Your task to perform on an android device: stop showing notifications on the lock screen Image 0: 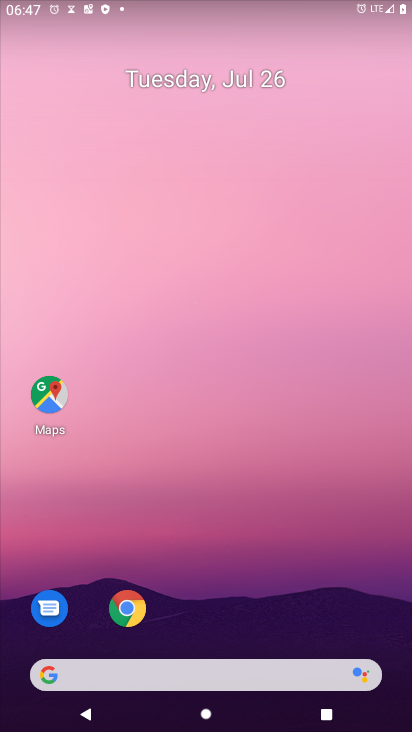
Step 0: press home button
Your task to perform on an android device: stop showing notifications on the lock screen Image 1: 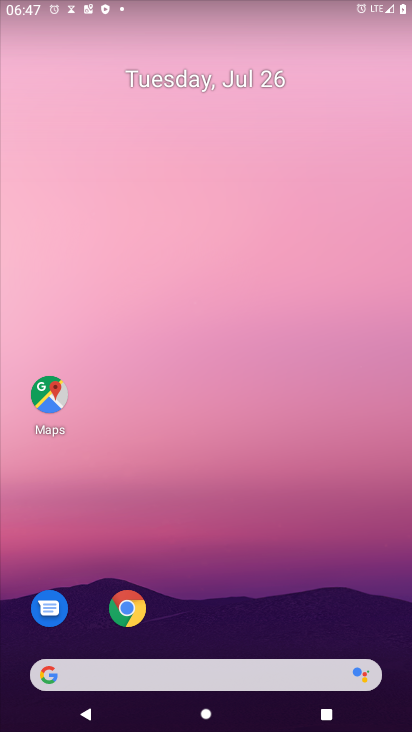
Step 1: drag from (283, 637) to (258, 191)
Your task to perform on an android device: stop showing notifications on the lock screen Image 2: 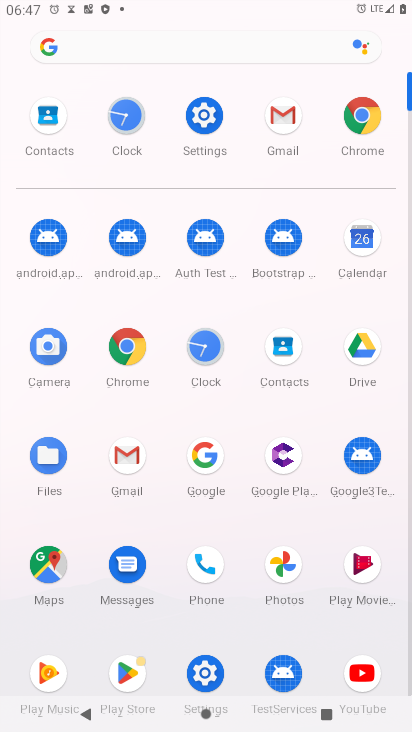
Step 2: click (201, 114)
Your task to perform on an android device: stop showing notifications on the lock screen Image 3: 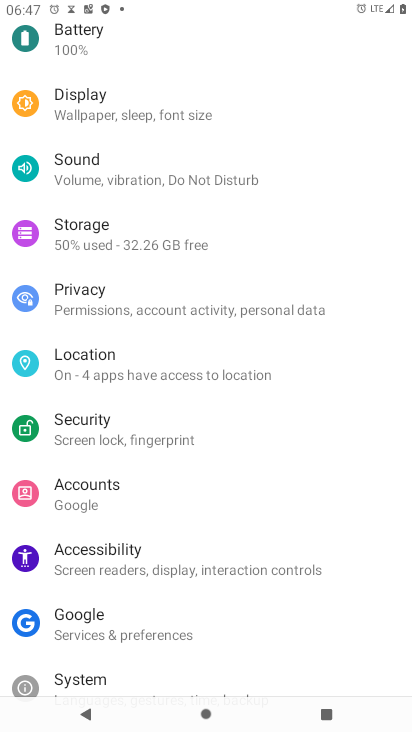
Step 3: drag from (230, 98) to (220, 699)
Your task to perform on an android device: stop showing notifications on the lock screen Image 4: 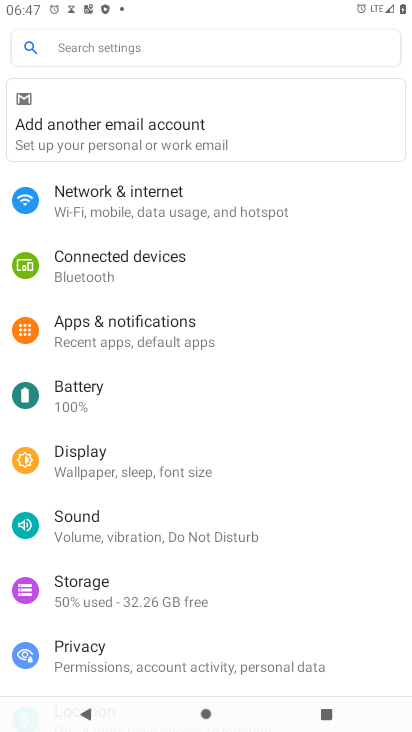
Step 4: click (136, 333)
Your task to perform on an android device: stop showing notifications on the lock screen Image 5: 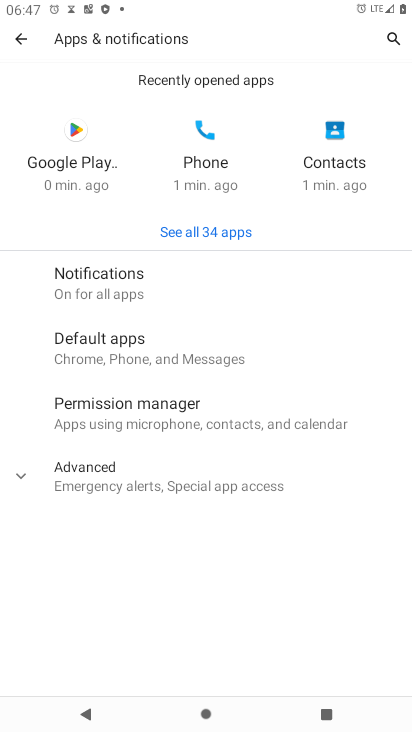
Step 5: click (84, 279)
Your task to perform on an android device: stop showing notifications on the lock screen Image 6: 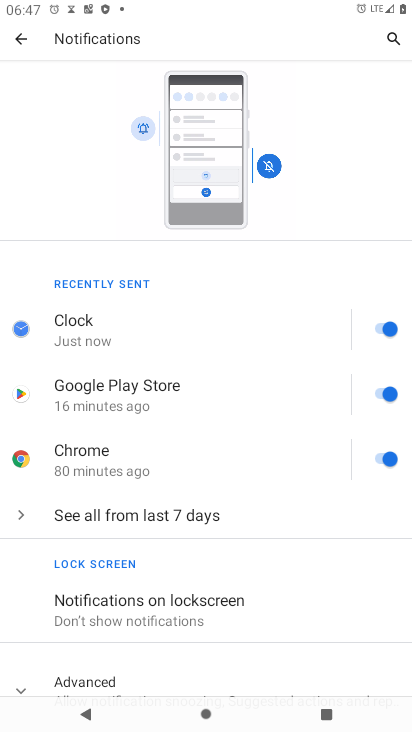
Step 6: click (125, 609)
Your task to perform on an android device: stop showing notifications on the lock screen Image 7: 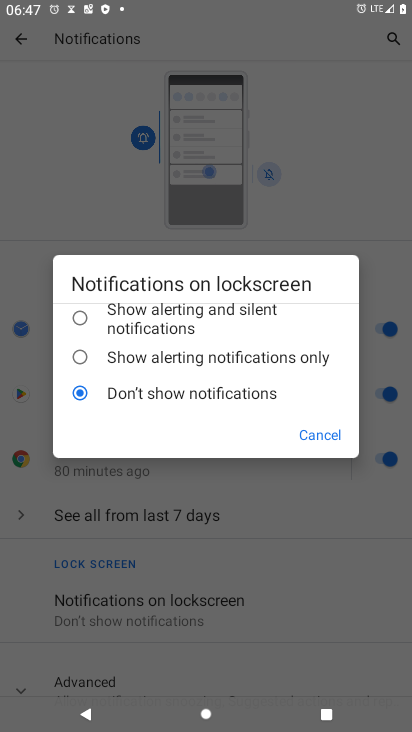
Step 7: task complete